Your task to perform on an android device: add a contact Image 0: 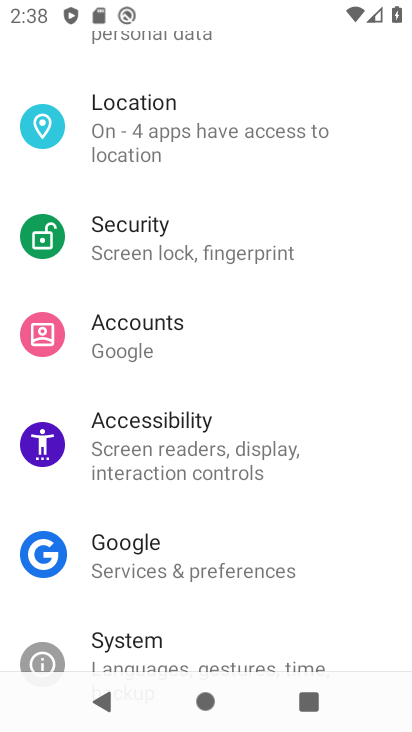
Step 0: press home button
Your task to perform on an android device: add a contact Image 1: 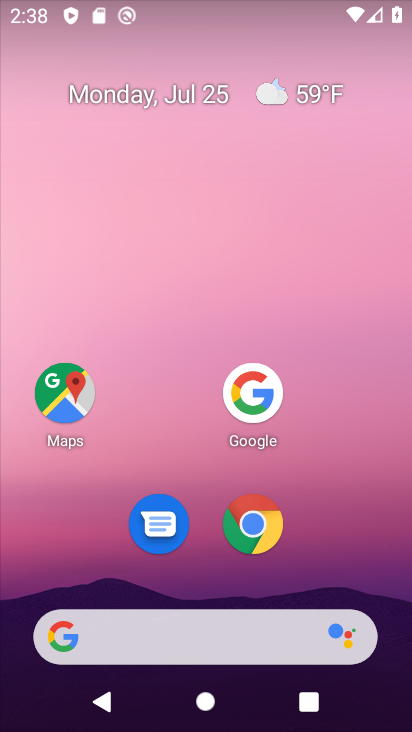
Step 1: drag from (198, 642) to (294, 148)
Your task to perform on an android device: add a contact Image 2: 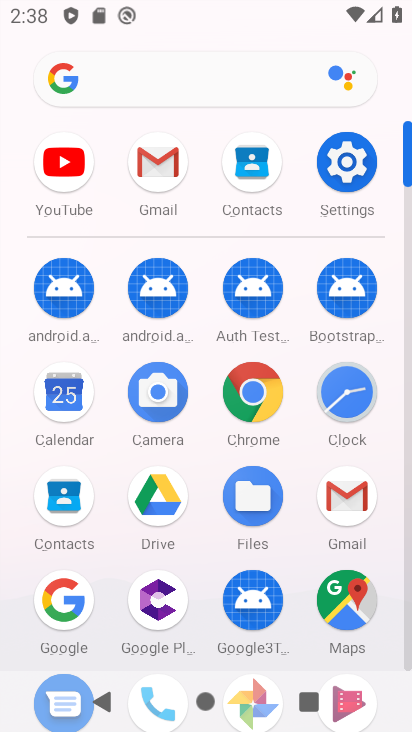
Step 2: click (62, 494)
Your task to perform on an android device: add a contact Image 3: 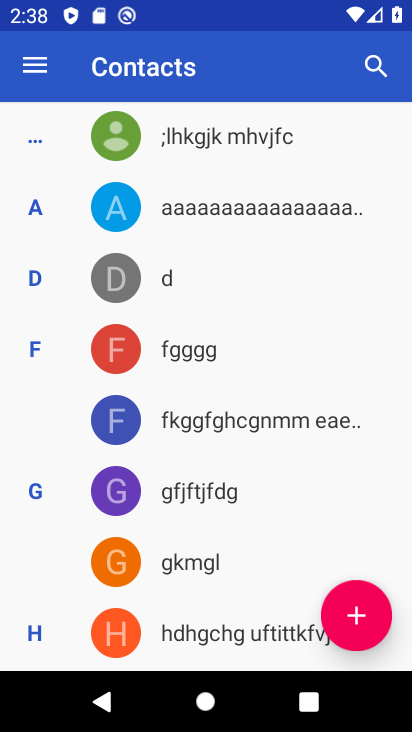
Step 3: click (360, 605)
Your task to perform on an android device: add a contact Image 4: 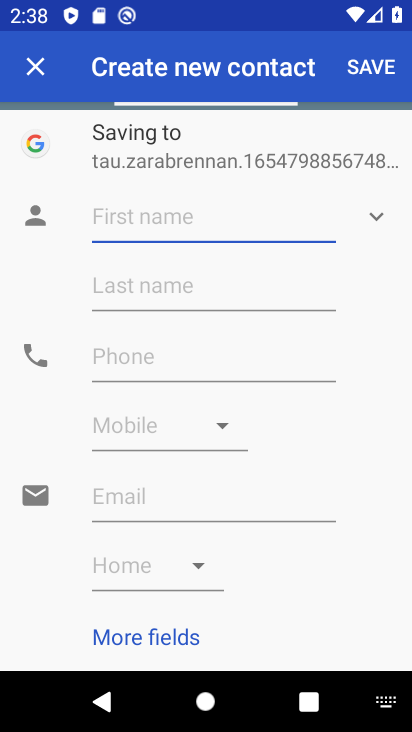
Step 4: type "vwsad"
Your task to perform on an android device: add a contact Image 5: 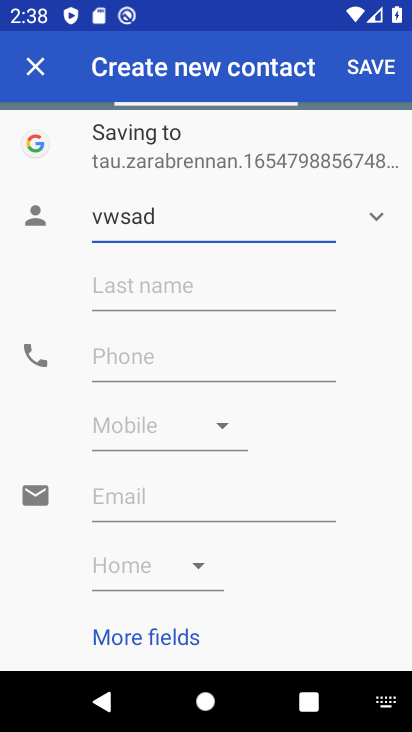
Step 5: click (118, 350)
Your task to perform on an android device: add a contact Image 6: 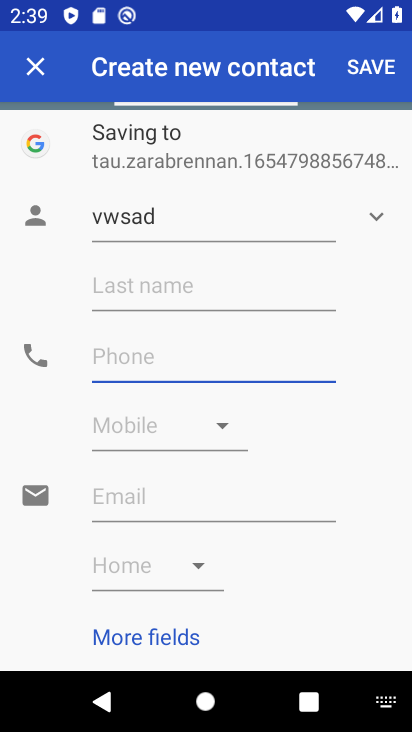
Step 6: type "2657"
Your task to perform on an android device: add a contact Image 7: 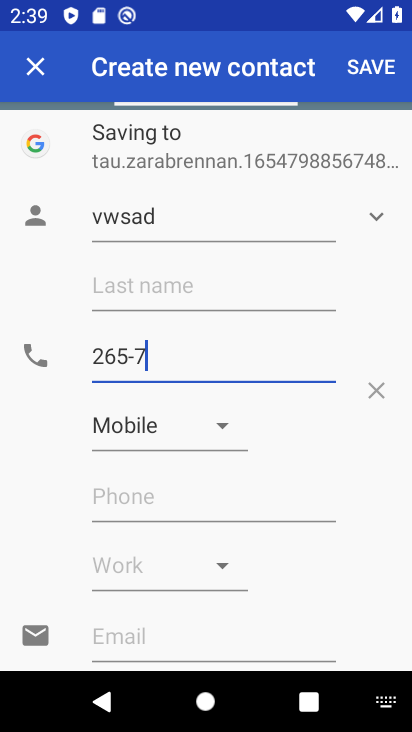
Step 7: click (360, 68)
Your task to perform on an android device: add a contact Image 8: 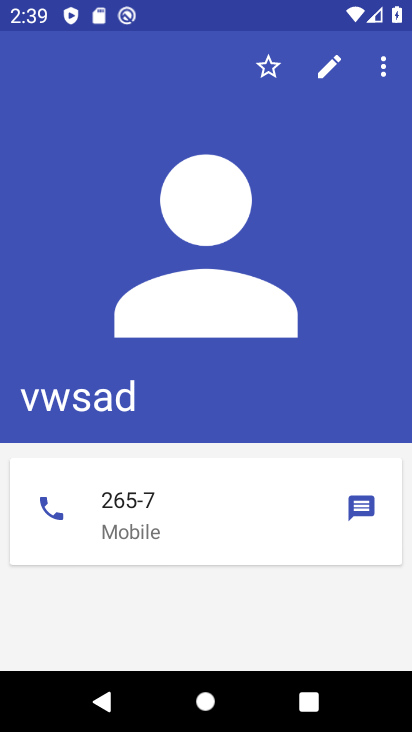
Step 8: task complete